Your task to perform on an android device: Open the web browser Image 0: 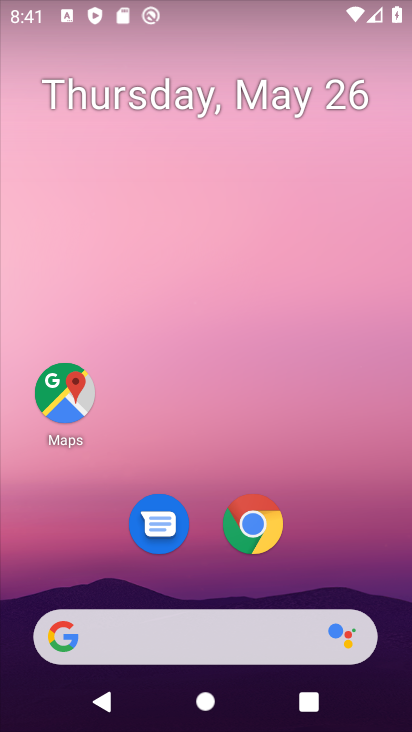
Step 0: click (212, 641)
Your task to perform on an android device: Open the web browser Image 1: 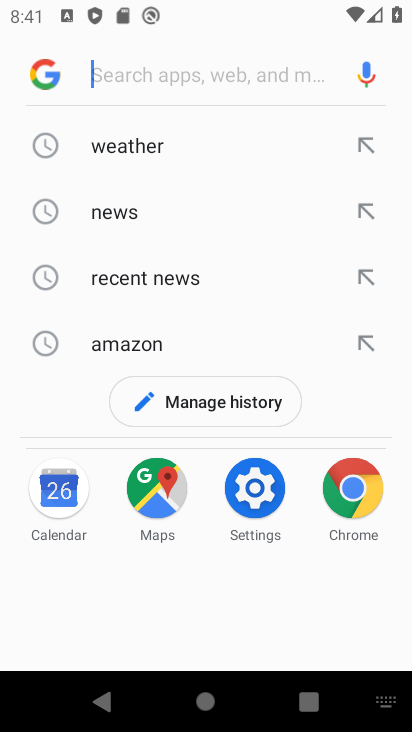
Step 1: task complete